Your task to perform on an android device: Open Google Chrome and click the shortcut for Amazon.com Image 0: 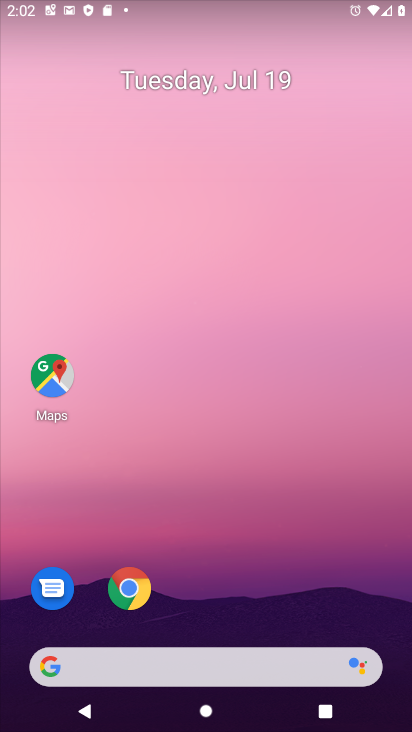
Step 0: drag from (192, 5) to (153, 60)
Your task to perform on an android device: Open Google Chrome and click the shortcut for Amazon.com Image 1: 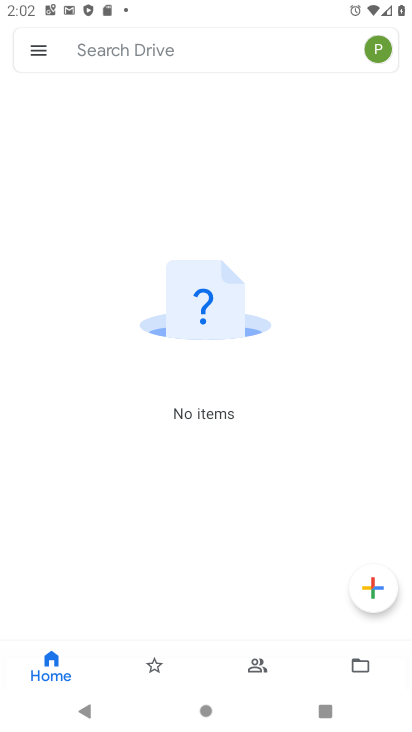
Step 1: press home button
Your task to perform on an android device: Open Google Chrome and click the shortcut for Amazon.com Image 2: 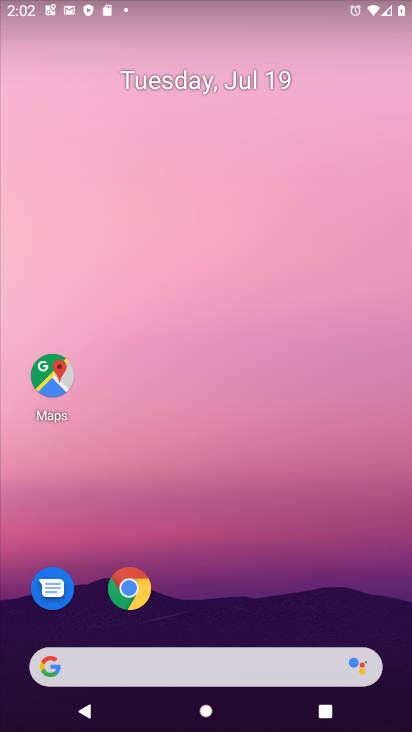
Step 2: click (240, 60)
Your task to perform on an android device: Open Google Chrome and click the shortcut for Amazon.com Image 3: 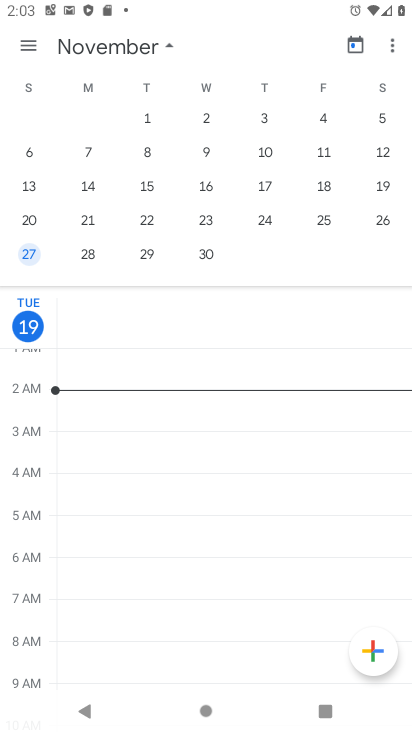
Step 3: press home button
Your task to perform on an android device: Open Google Chrome and click the shortcut for Amazon.com Image 4: 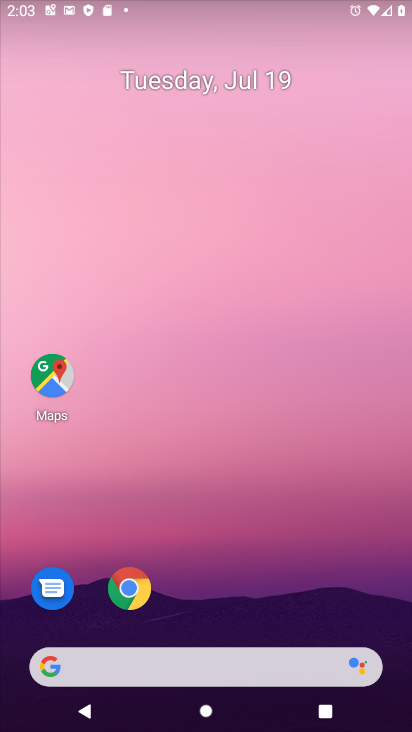
Step 4: drag from (373, 588) to (263, 96)
Your task to perform on an android device: Open Google Chrome and click the shortcut for Amazon.com Image 5: 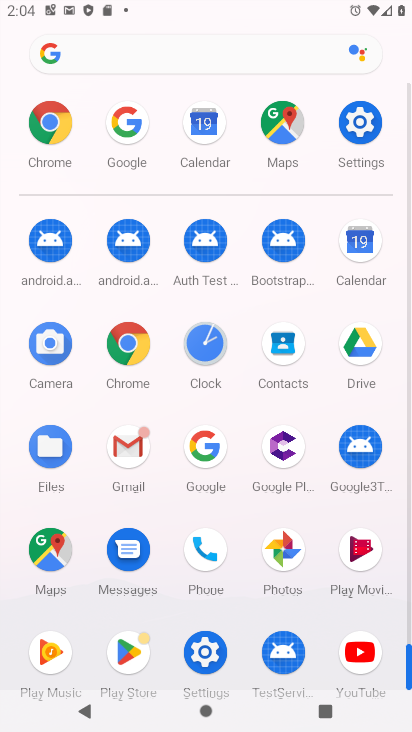
Step 5: click (120, 323)
Your task to perform on an android device: Open Google Chrome and click the shortcut for Amazon.com Image 6: 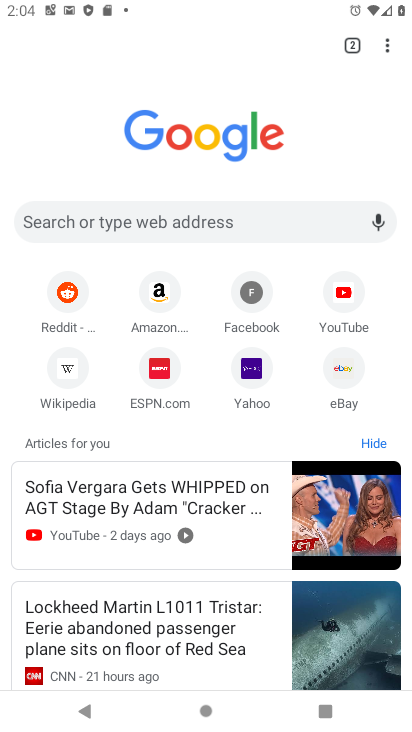
Step 6: click (139, 275)
Your task to perform on an android device: Open Google Chrome and click the shortcut for Amazon.com Image 7: 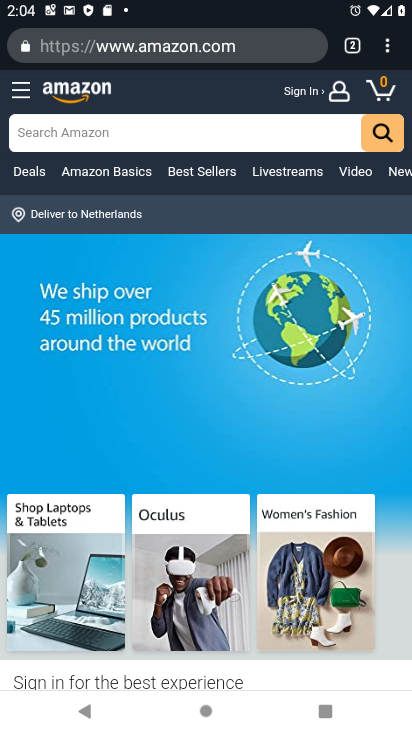
Step 7: task complete